Your task to perform on an android device: Open location settings Image 0: 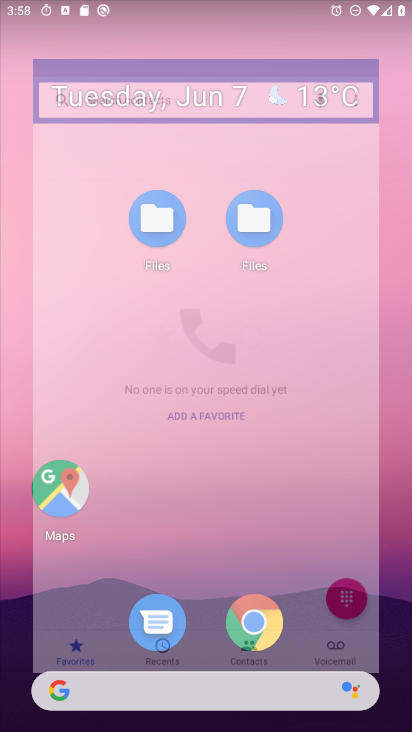
Step 0: drag from (341, 594) to (348, 380)
Your task to perform on an android device: Open location settings Image 1: 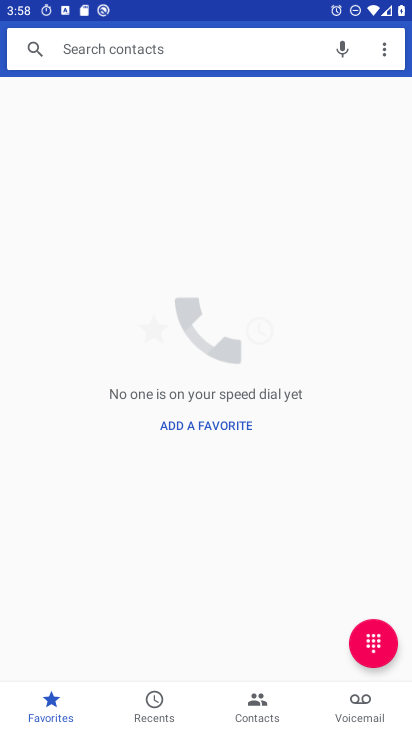
Step 1: press home button
Your task to perform on an android device: Open location settings Image 2: 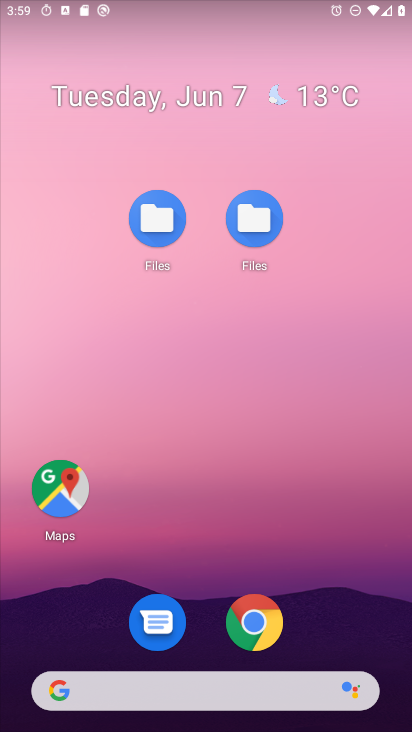
Step 2: press home button
Your task to perform on an android device: Open location settings Image 3: 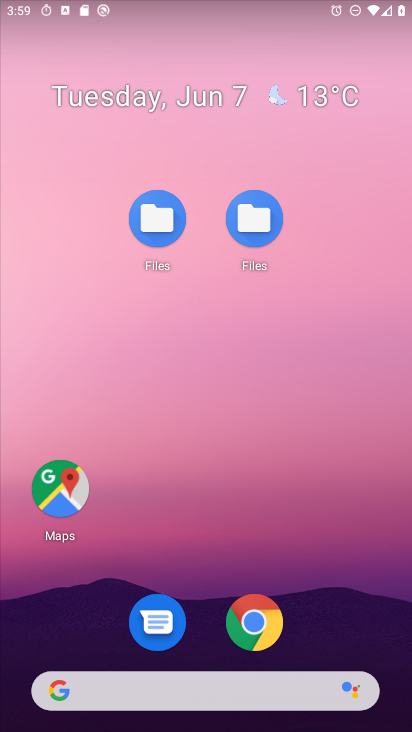
Step 3: drag from (336, 557) to (340, 170)
Your task to perform on an android device: Open location settings Image 4: 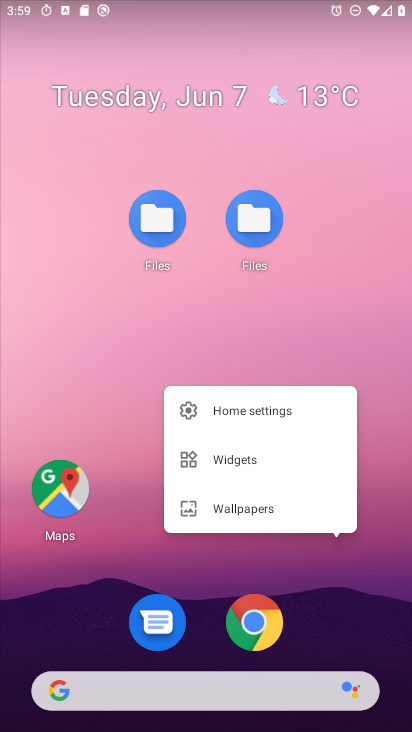
Step 4: click (349, 268)
Your task to perform on an android device: Open location settings Image 5: 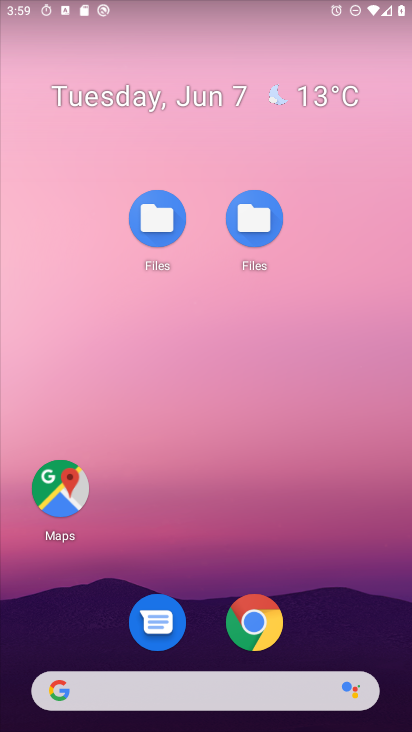
Step 5: drag from (345, 537) to (337, 229)
Your task to perform on an android device: Open location settings Image 6: 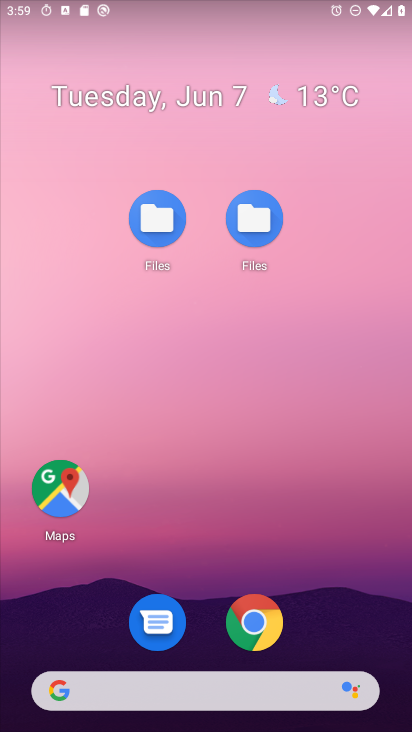
Step 6: drag from (348, 503) to (389, 201)
Your task to perform on an android device: Open location settings Image 7: 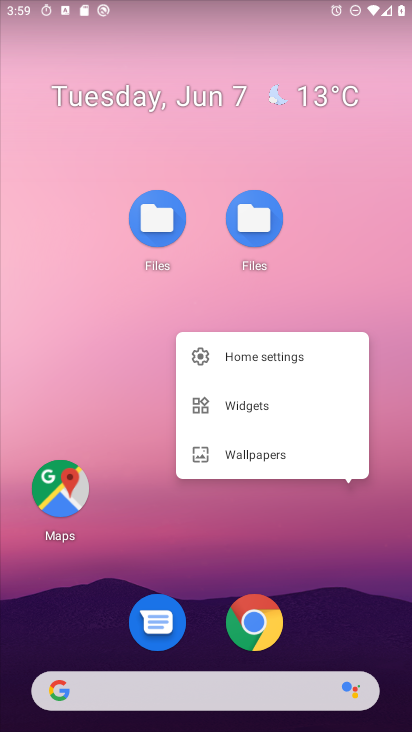
Step 7: click (64, 383)
Your task to perform on an android device: Open location settings Image 8: 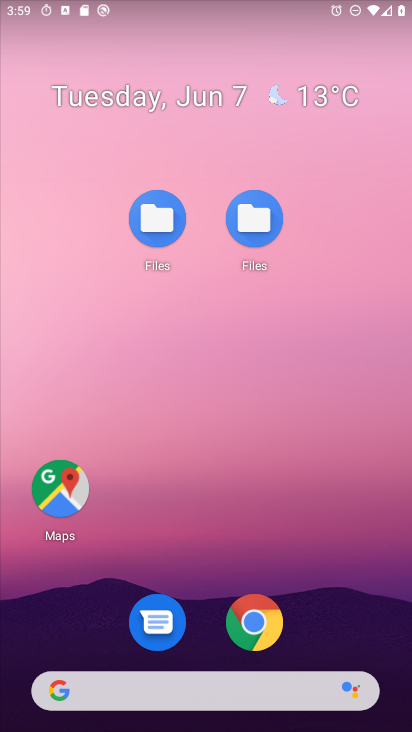
Step 8: drag from (330, 599) to (341, 72)
Your task to perform on an android device: Open location settings Image 9: 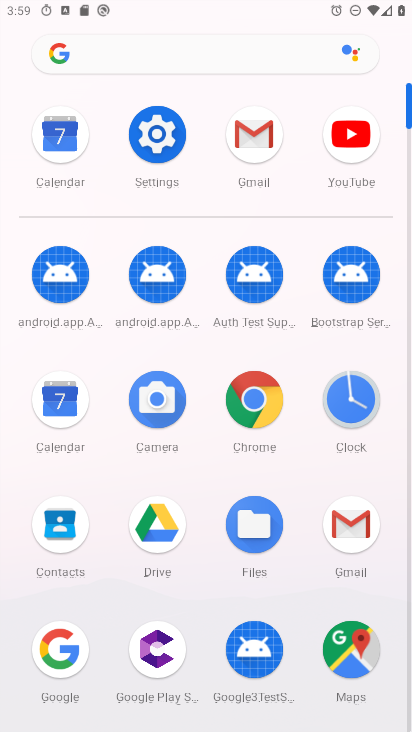
Step 9: click (151, 144)
Your task to perform on an android device: Open location settings Image 10: 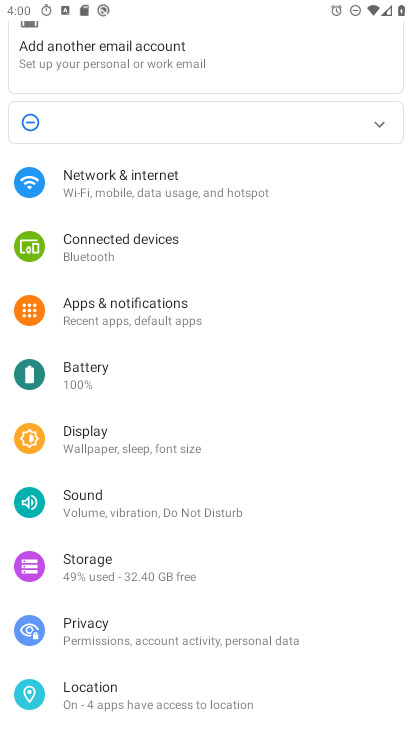
Step 10: click (199, 683)
Your task to perform on an android device: Open location settings Image 11: 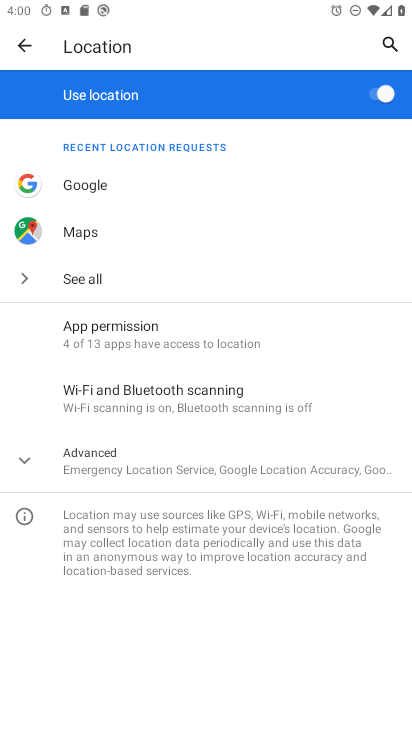
Step 11: task complete